Your task to perform on an android device: Open my contact list Image 0: 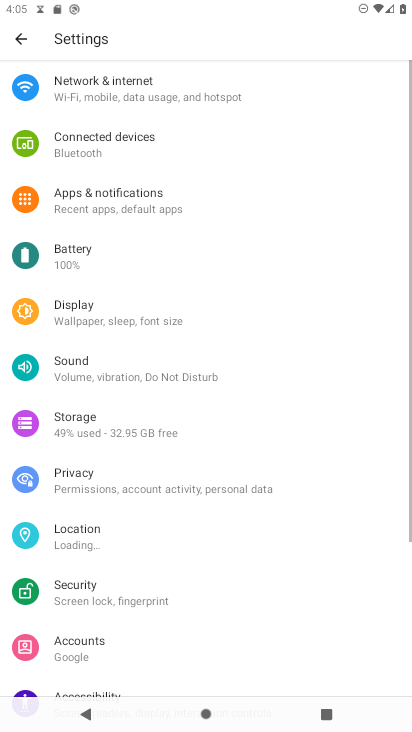
Step 0: press home button
Your task to perform on an android device: Open my contact list Image 1: 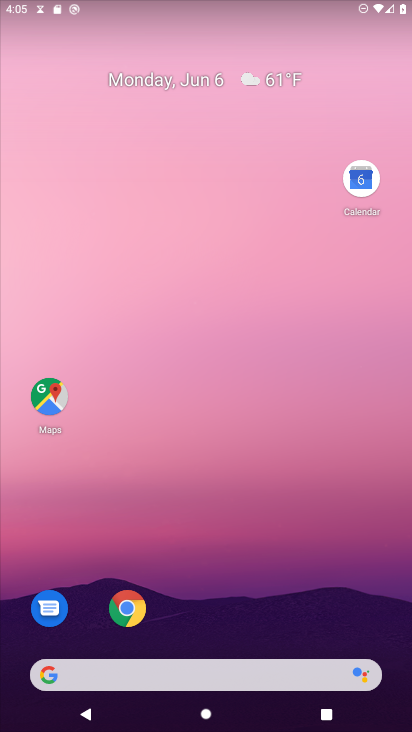
Step 1: drag from (224, 625) to (340, 47)
Your task to perform on an android device: Open my contact list Image 2: 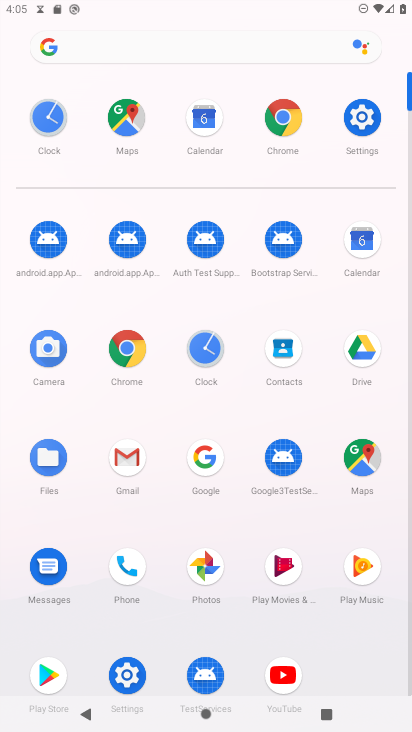
Step 2: click (280, 363)
Your task to perform on an android device: Open my contact list Image 3: 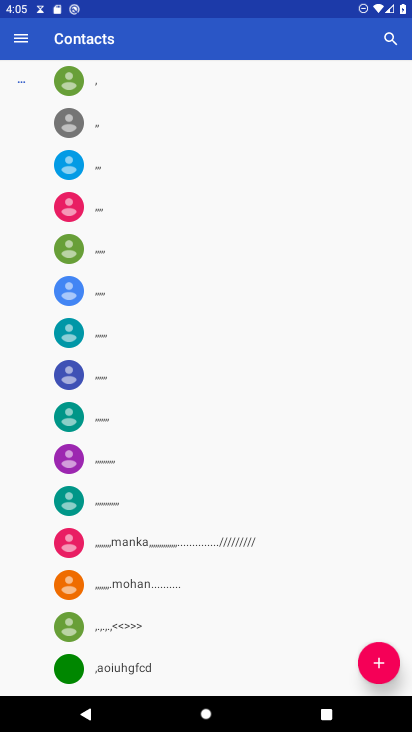
Step 3: task complete